Your task to perform on an android device: View the shopping cart on costco. Add "razer blade" to the cart on costco Image 0: 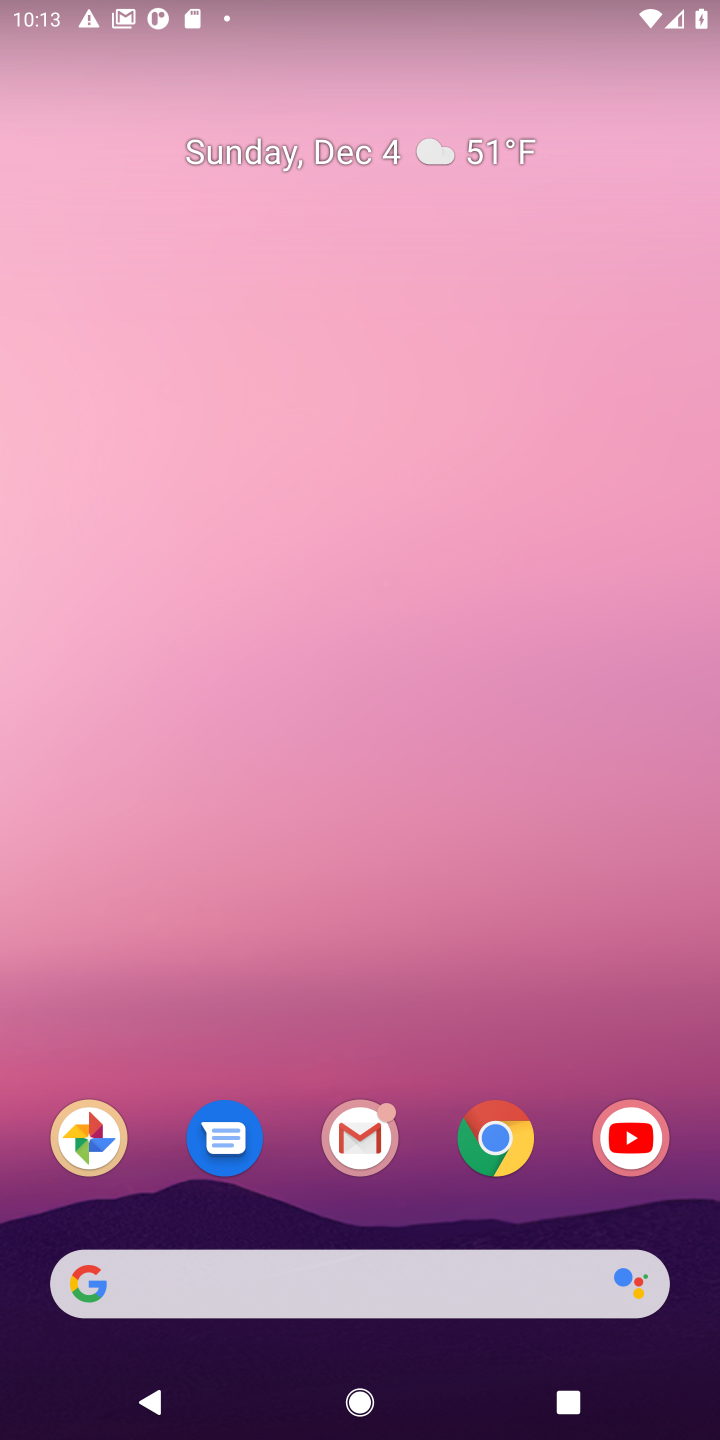
Step 0: click (509, 1121)
Your task to perform on an android device: View the shopping cart on costco. Add "razer blade" to the cart on costco Image 1: 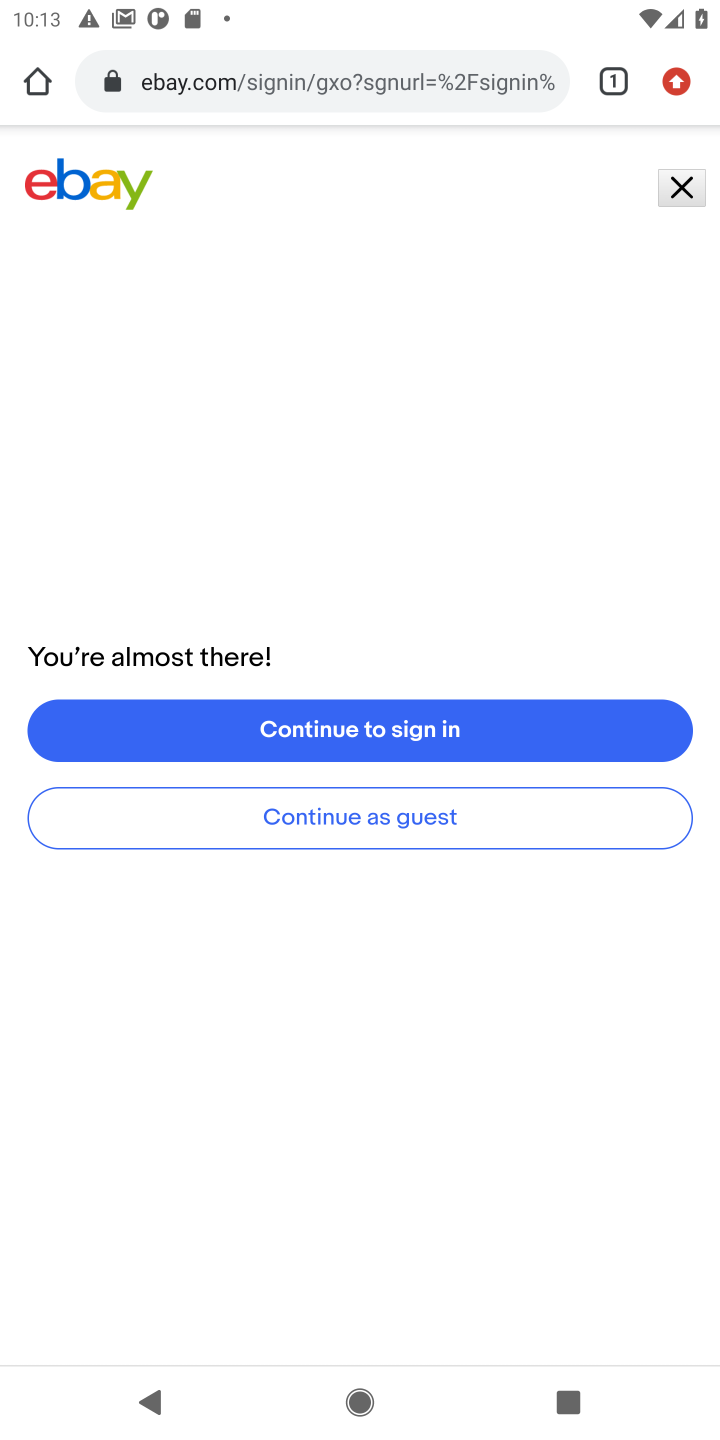
Step 1: click (465, 76)
Your task to perform on an android device: View the shopping cart on costco. Add "razer blade" to the cart on costco Image 2: 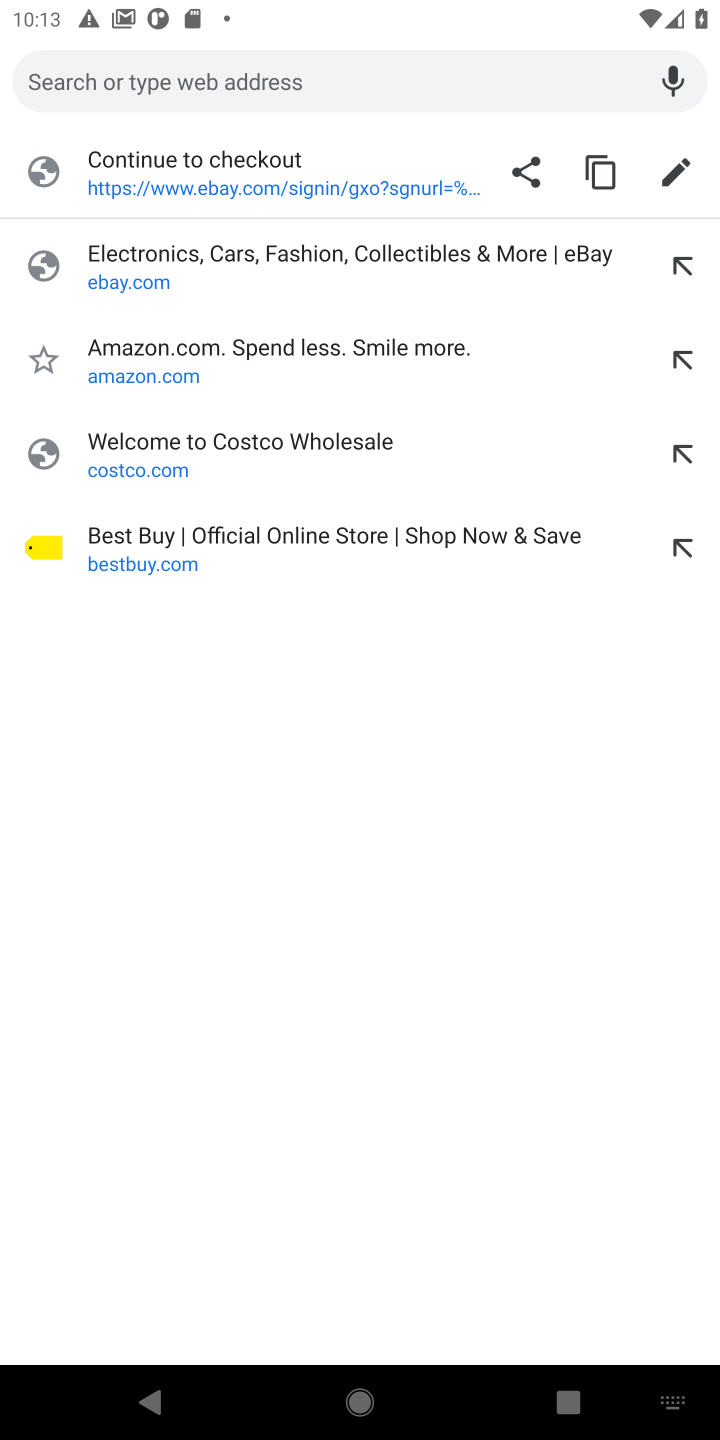
Step 2: click (332, 440)
Your task to perform on an android device: View the shopping cart on costco. Add "razer blade" to the cart on costco Image 3: 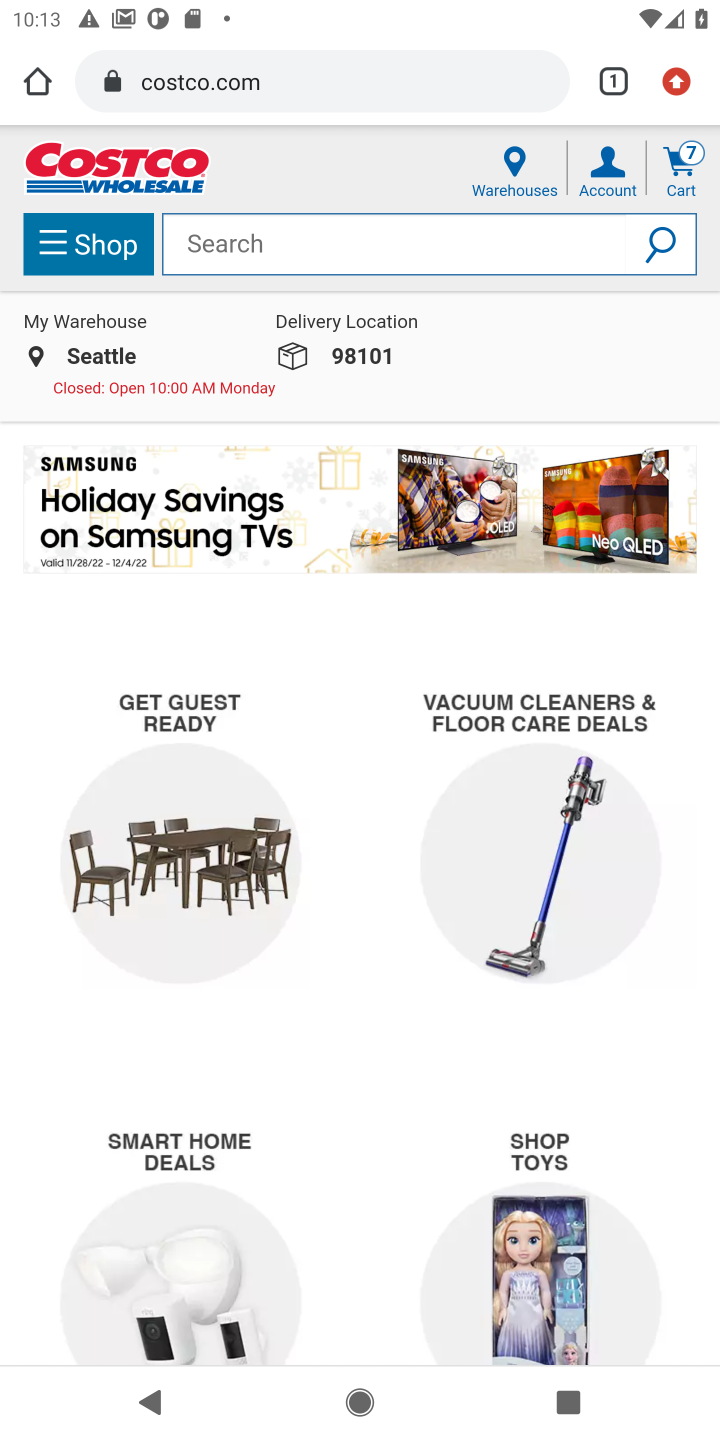
Step 3: click (675, 174)
Your task to perform on an android device: View the shopping cart on costco. Add "razer blade" to the cart on costco Image 4: 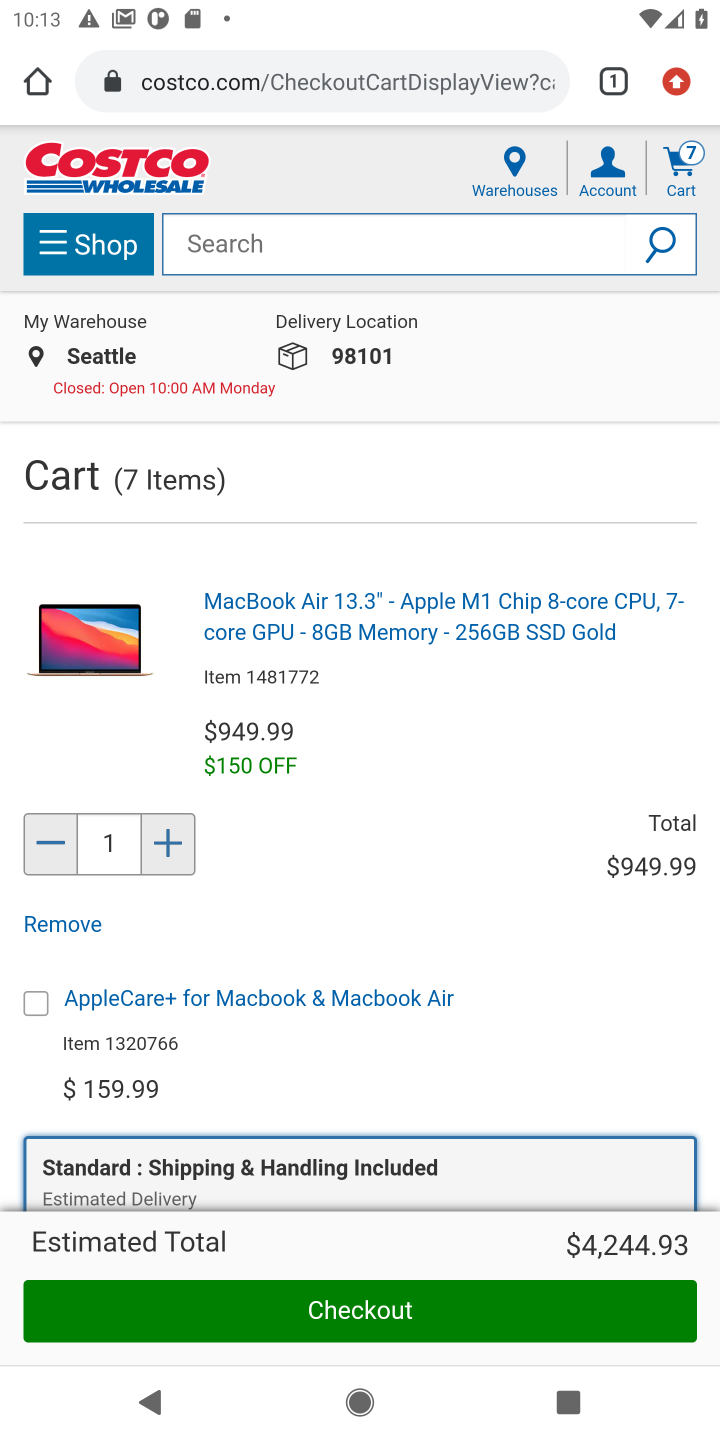
Step 4: click (663, 233)
Your task to perform on an android device: View the shopping cart on costco. Add "razer blade" to the cart on costco Image 5: 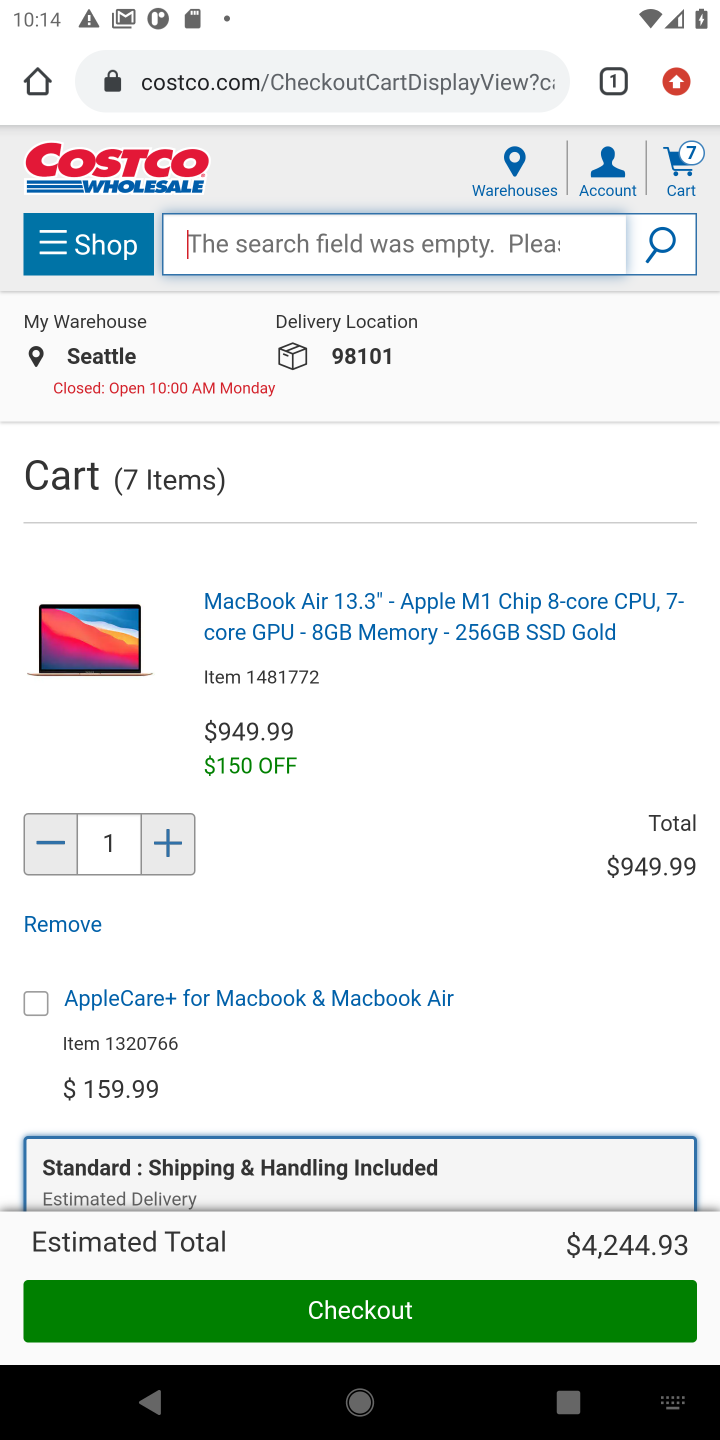
Step 5: type "razer blade"
Your task to perform on an android device: View the shopping cart on costco. Add "razer blade" to the cart on costco Image 6: 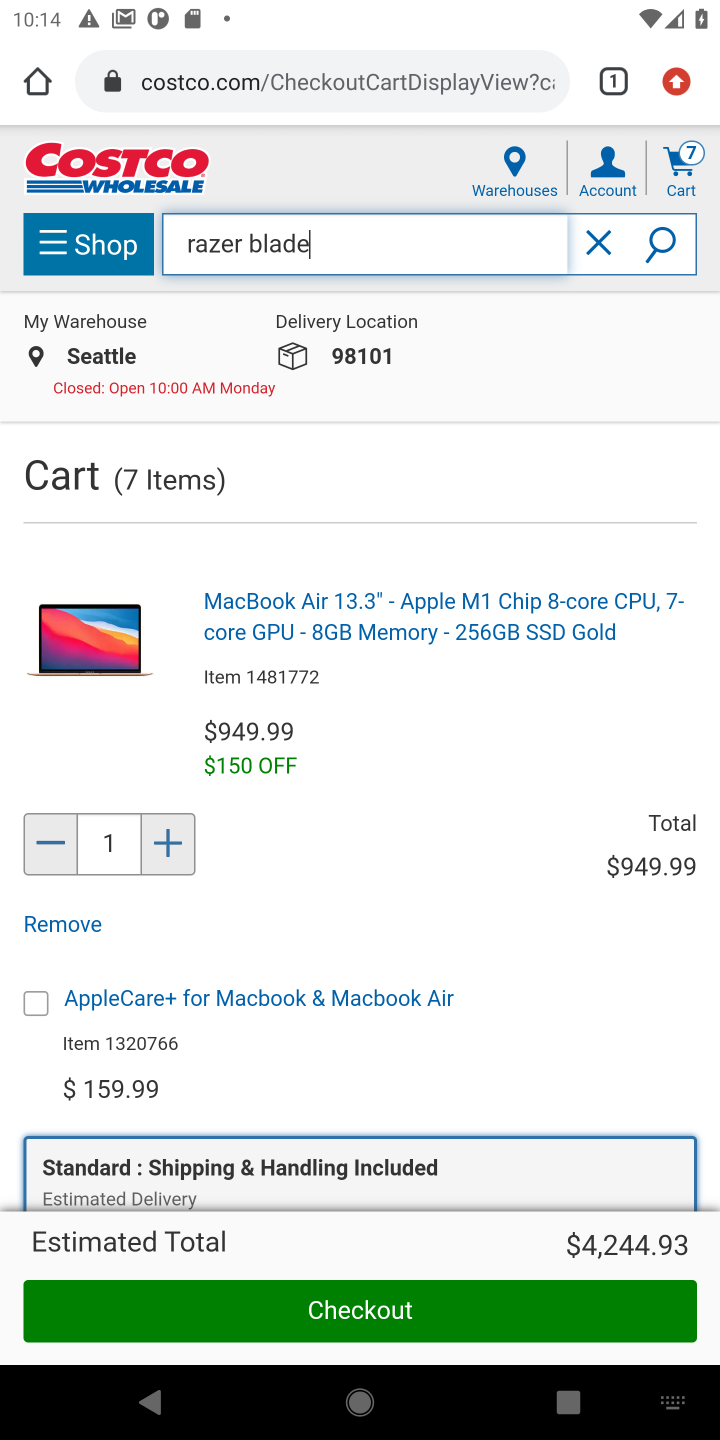
Step 6: press enter
Your task to perform on an android device: View the shopping cart on costco. Add "razer blade" to the cart on costco Image 7: 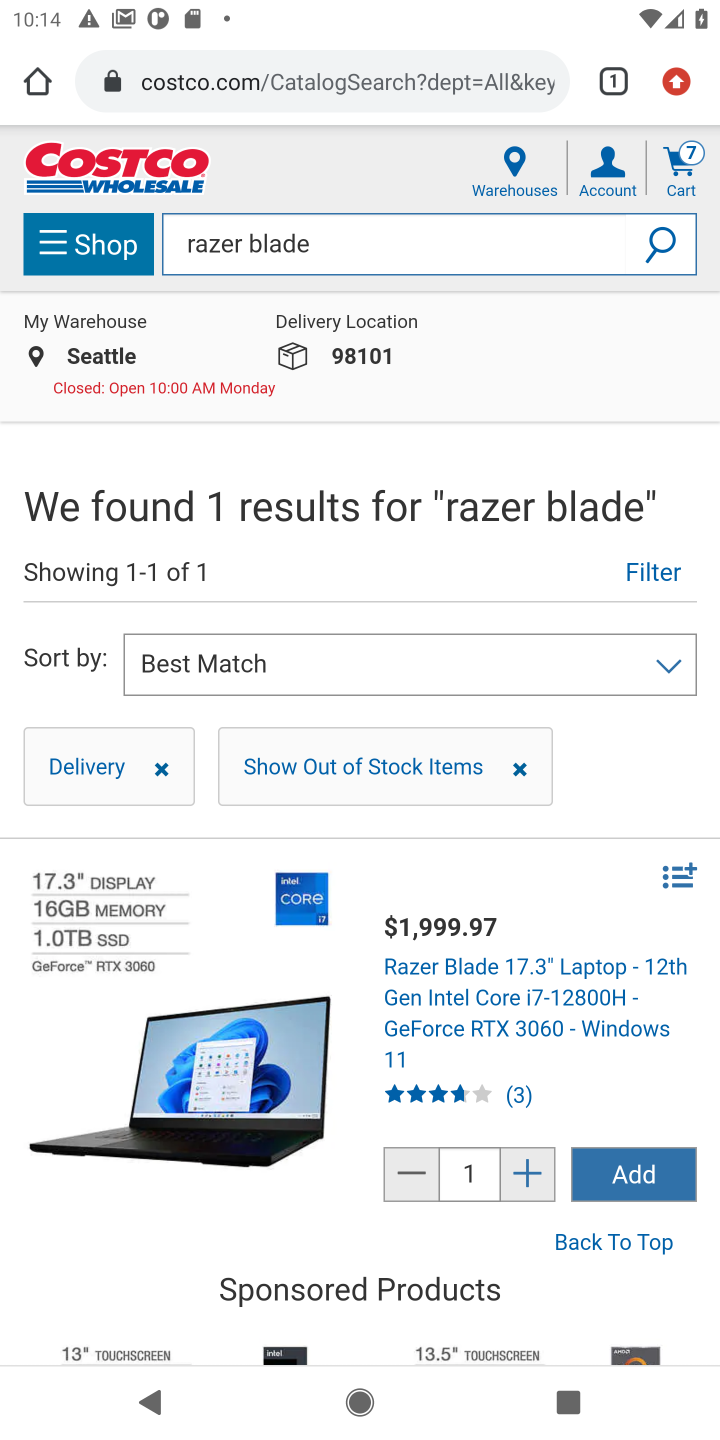
Step 7: click (512, 1005)
Your task to perform on an android device: View the shopping cart on costco. Add "razer blade" to the cart on costco Image 8: 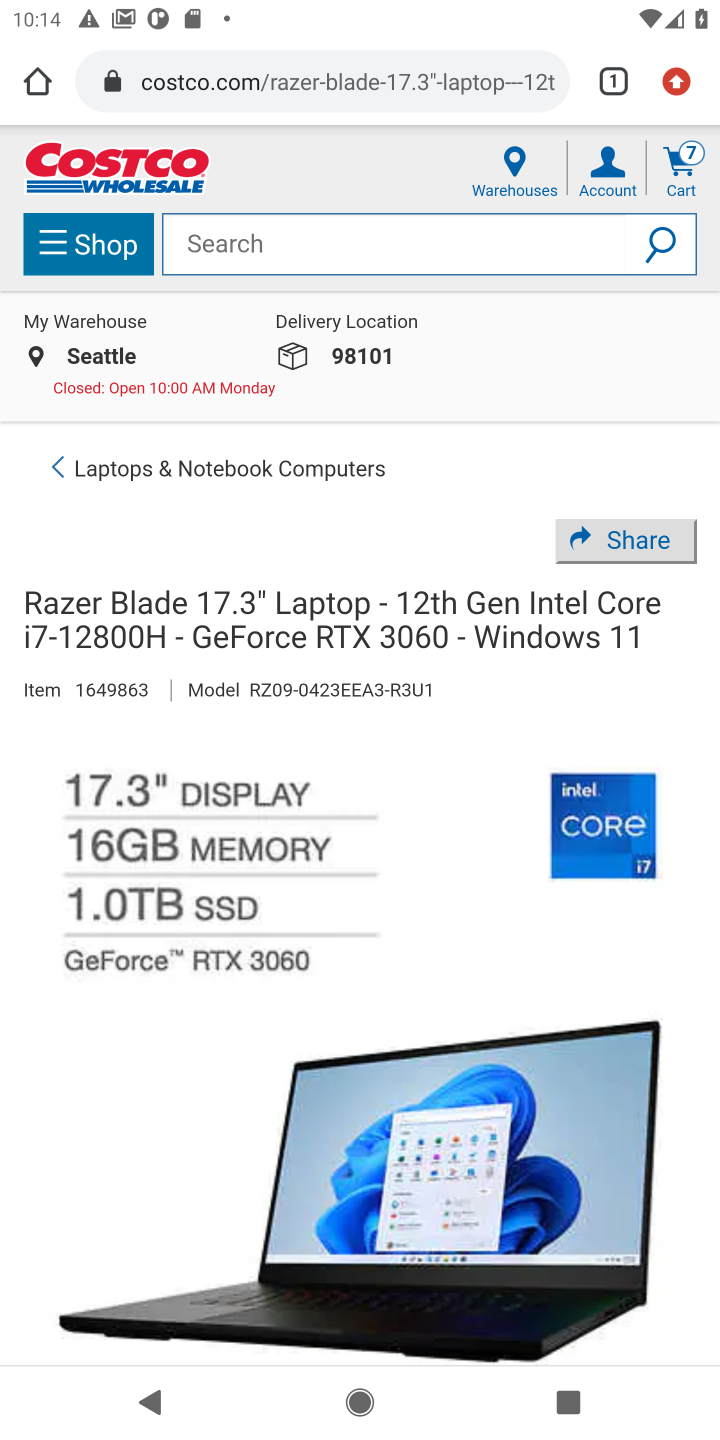
Step 8: drag from (523, 890) to (509, 223)
Your task to perform on an android device: View the shopping cart on costco. Add "razer blade" to the cart on costco Image 9: 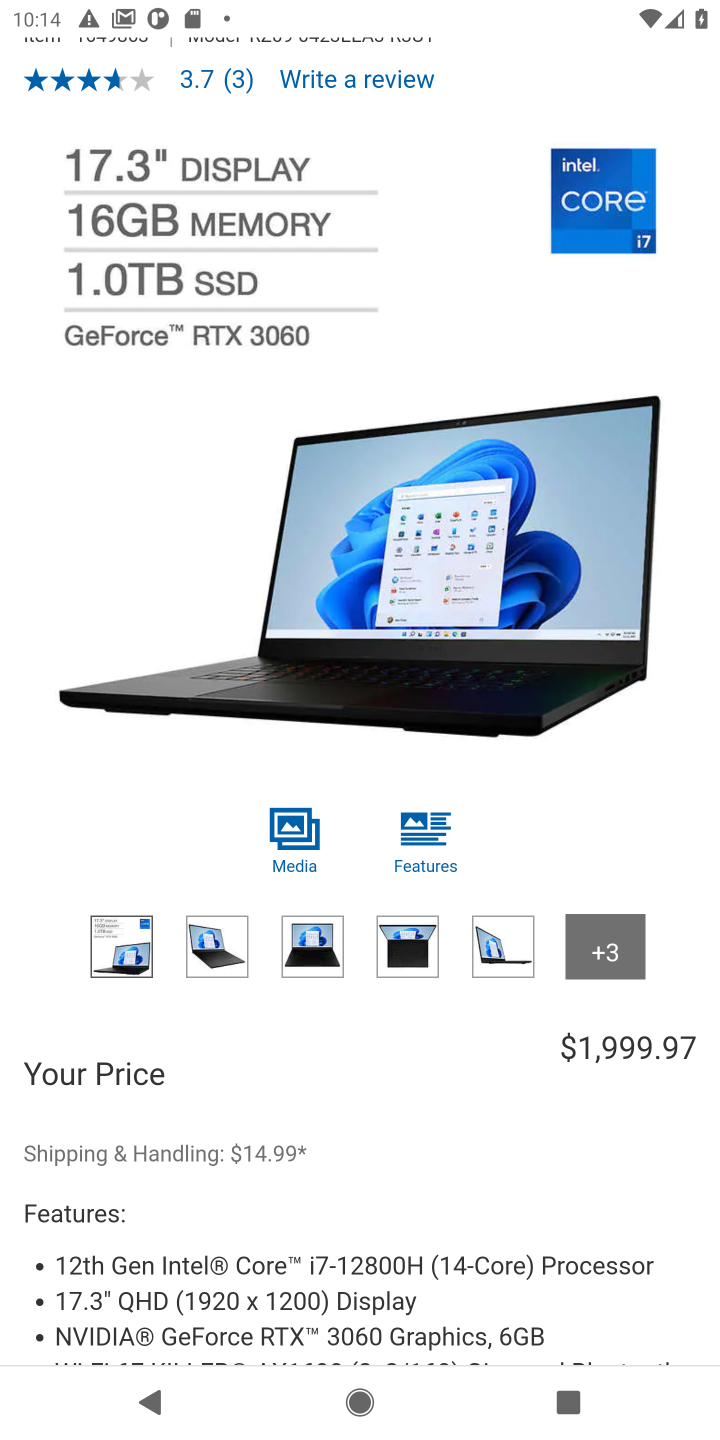
Step 9: drag from (478, 1087) to (574, 381)
Your task to perform on an android device: View the shopping cart on costco. Add "razer blade" to the cart on costco Image 10: 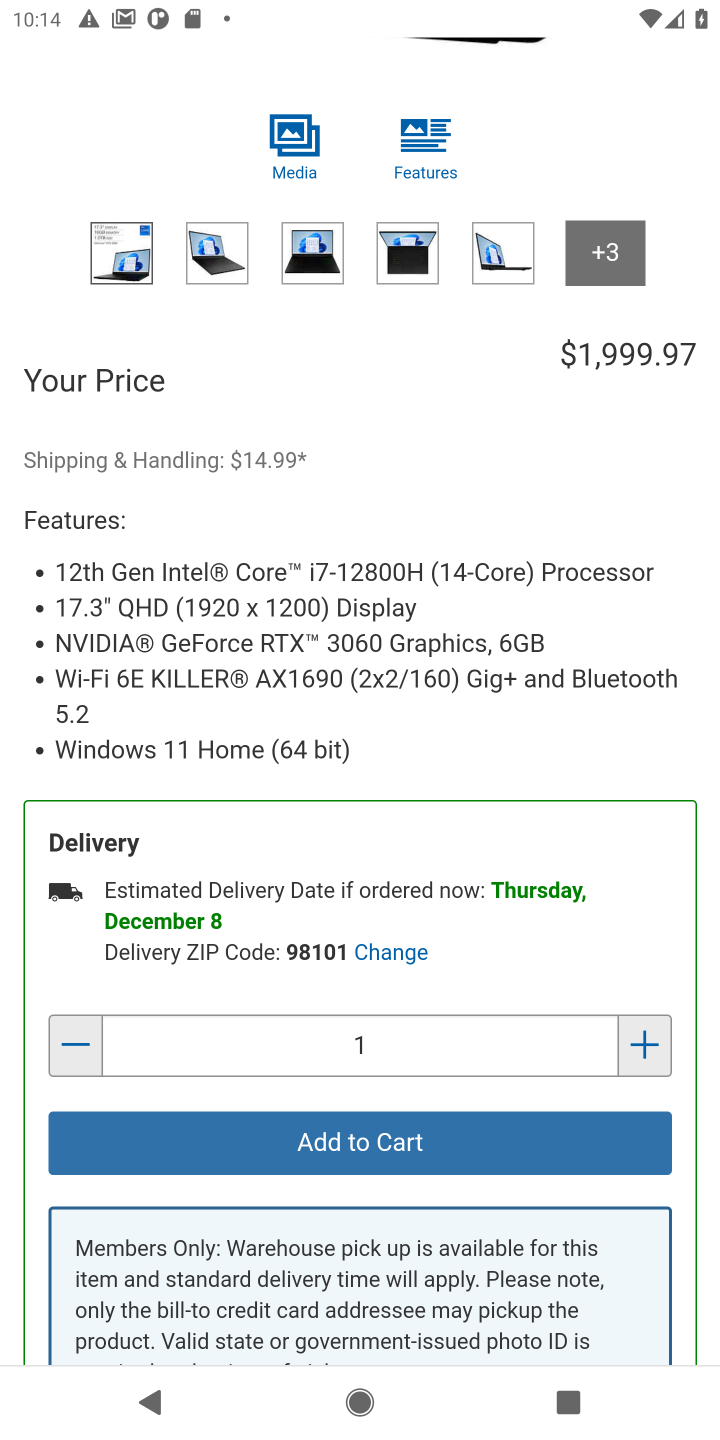
Step 10: click (402, 1139)
Your task to perform on an android device: View the shopping cart on costco. Add "razer blade" to the cart on costco Image 11: 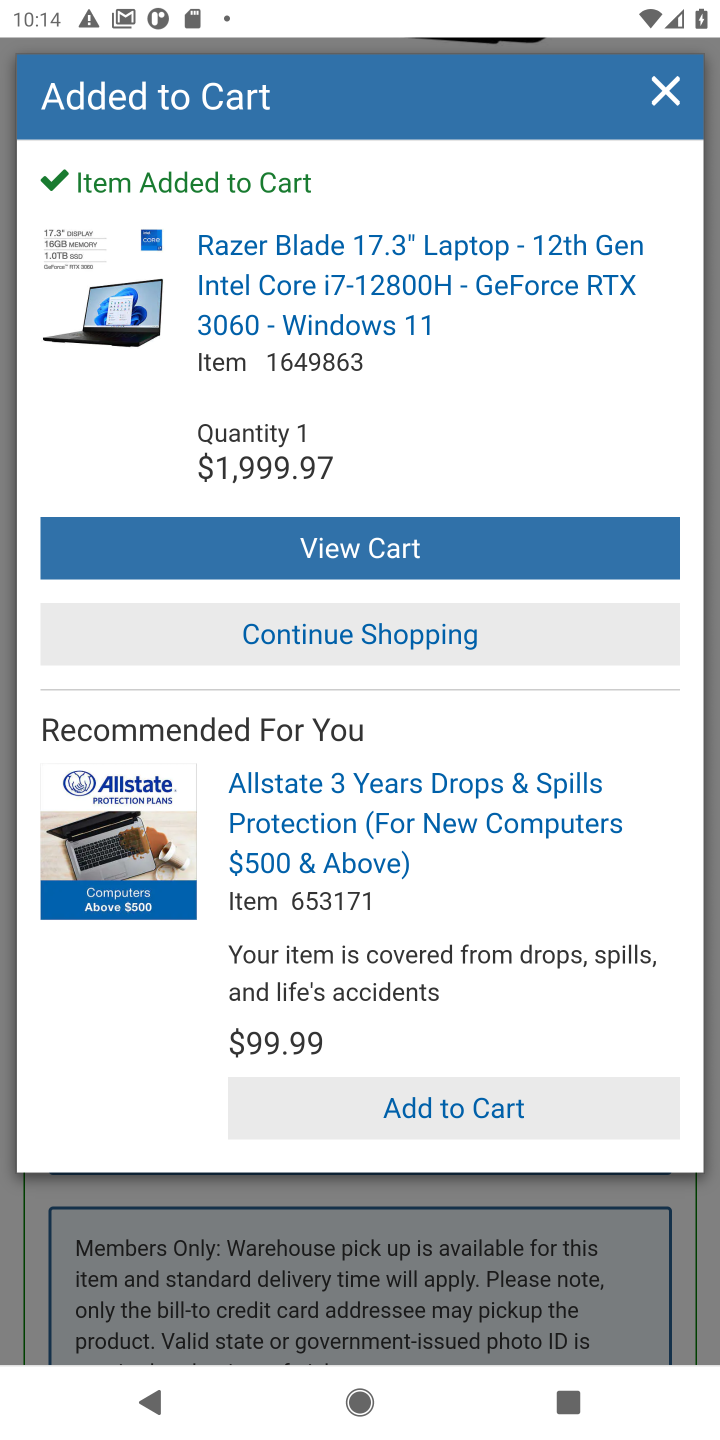
Step 11: click (361, 549)
Your task to perform on an android device: View the shopping cart on costco. Add "razer blade" to the cart on costco Image 12: 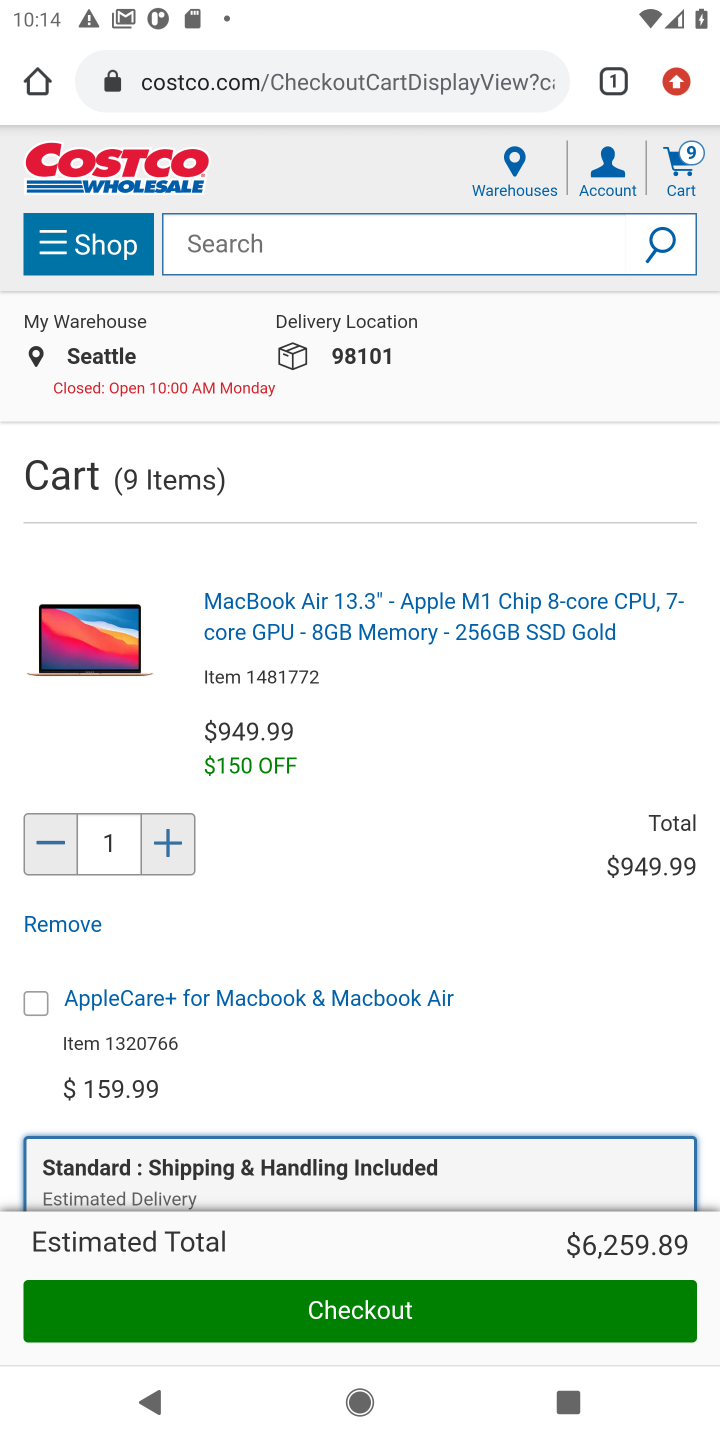
Step 12: task complete